Your task to perform on an android device: Show the shopping cart on costco.com. Search for "amazon basics triple a" on costco.com, select the first entry, add it to the cart, then select checkout. Image 0: 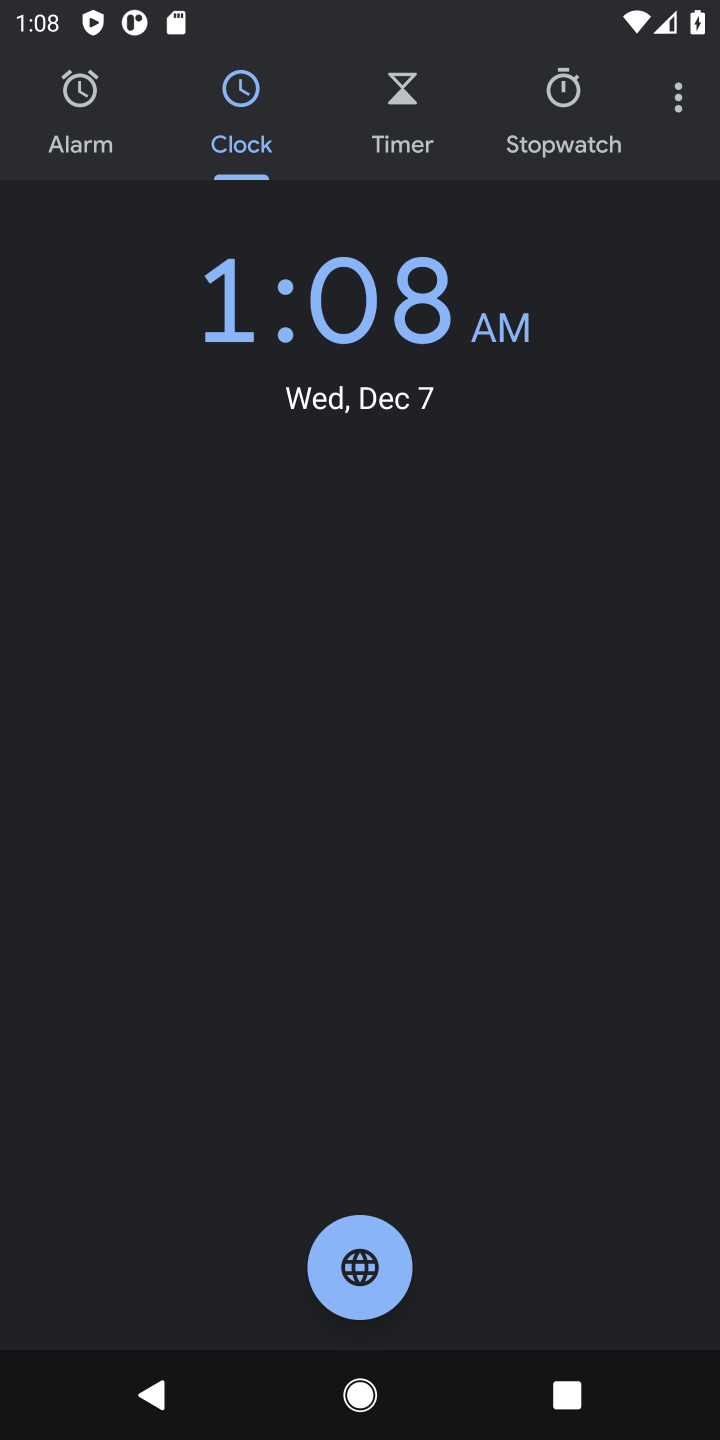
Step 0: task complete